Your task to perform on an android device: turn on wifi Image 0: 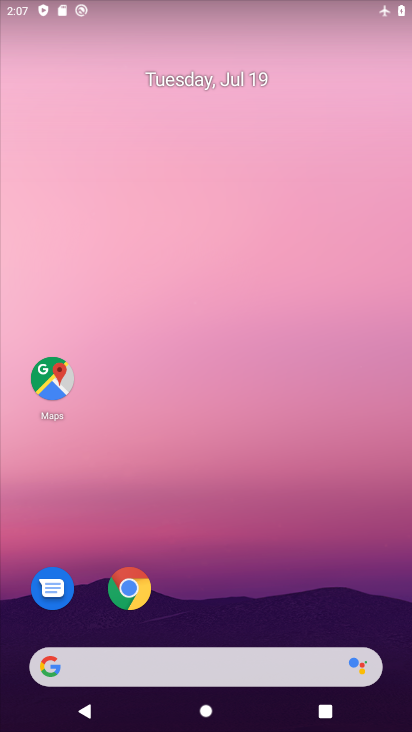
Step 0: press home button
Your task to perform on an android device: turn on wifi Image 1: 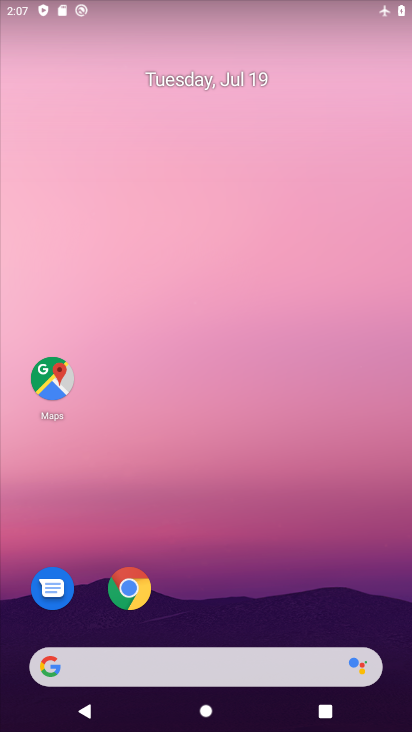
Step 1: drag from (217, 17) to (324, 445)
Your task to perform on an android device: turn on wifi Image 2: 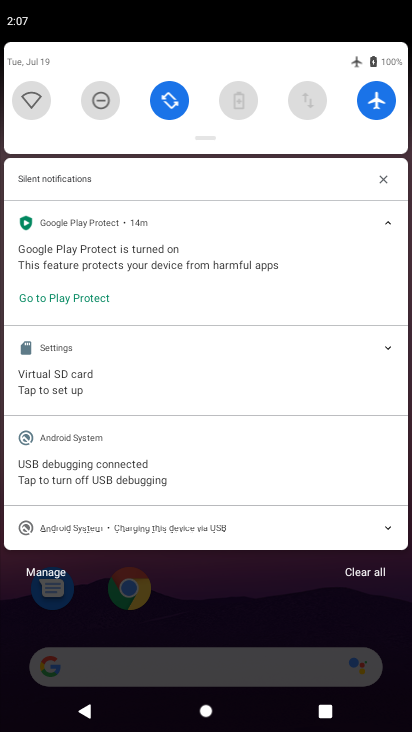
Step 2: click (36, 102)
Your task to perform on an android device: turn on wifi Image 3: 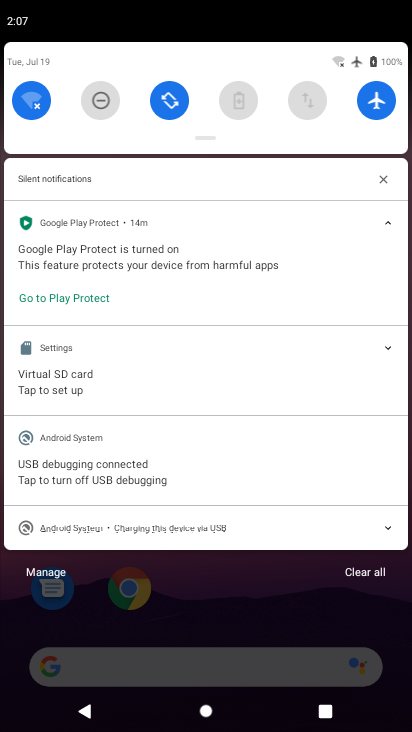
Step 3: task complete